Your task to perform on an android device: turn off location history Image 0: 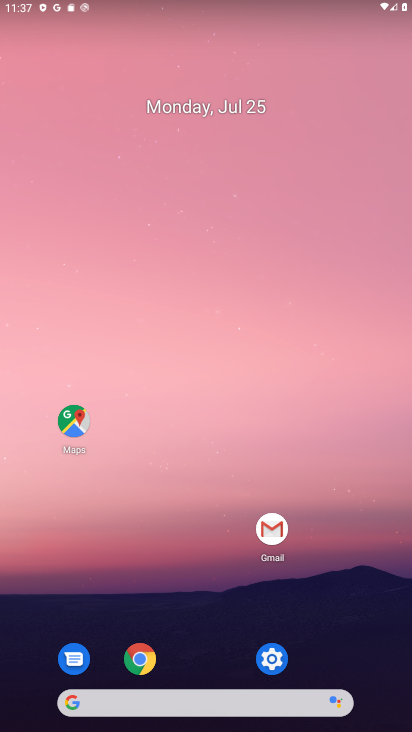
Step 0: click (279, 651)
Your task to perform on an android device: turn off location history Image 1: 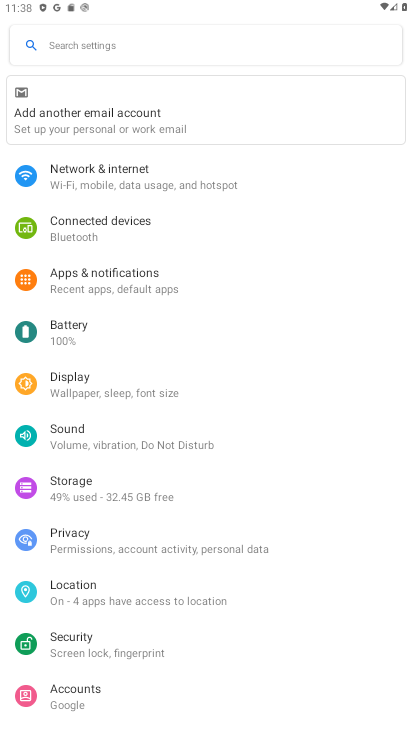
Step 1: click (98, 584)
Your task to perform on an android device: turn off location history Image 2: 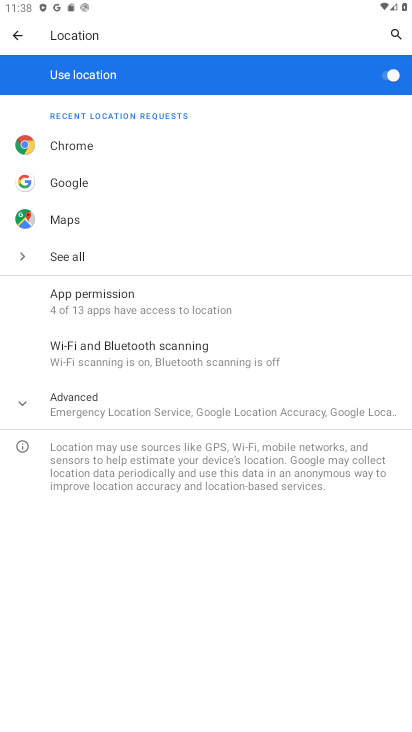
Step 2: click (15, 409)
Your task to perform on an android device: turn off location history Image 3: 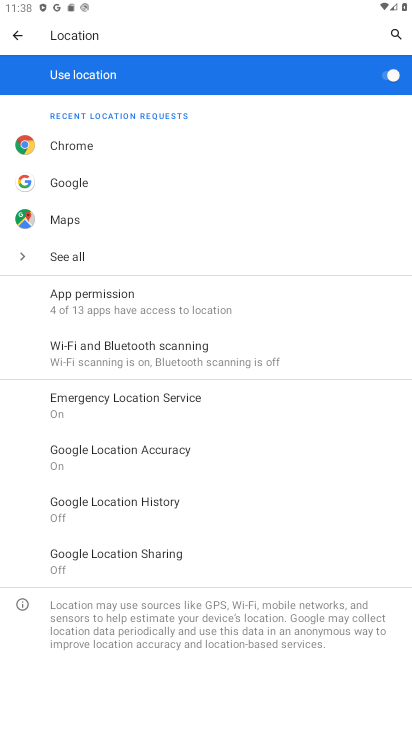
Step 3: click (116, 502)
Your task to perform on an android device: turn off location history Image 4: 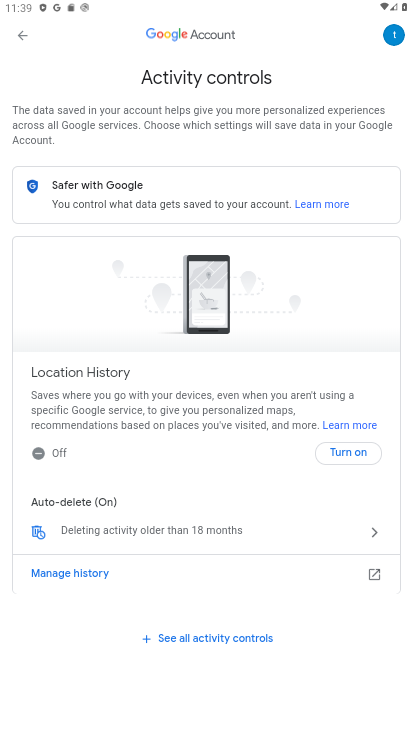
Step 4: task complete